Your task to perform on an android device: Do I have any events tomorrow? Image 0: 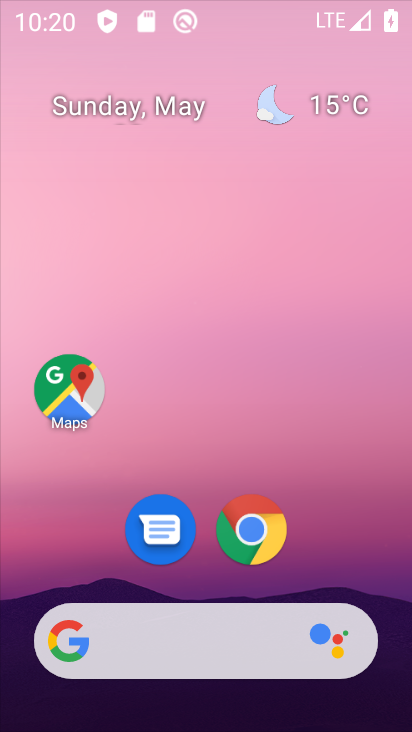
Step 0: drag from (311, 627) to (329, 65)
Your task to perform on an android device: Do I have any events tomorrow? Image 1: 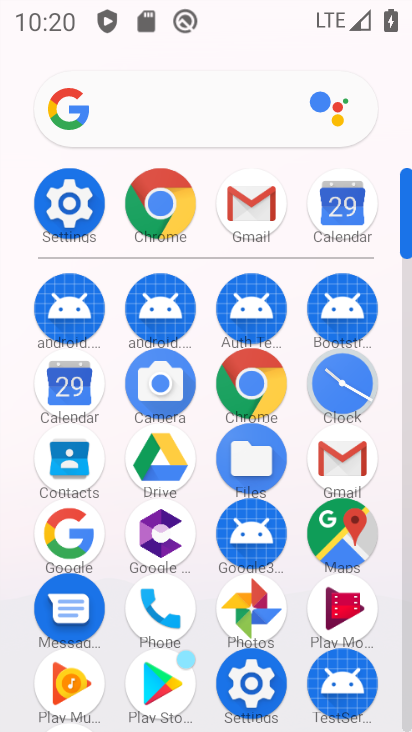
Step 1: click (76, 385)
Your task to perform on an android device: Do I have any events tomorrow? Image 2: 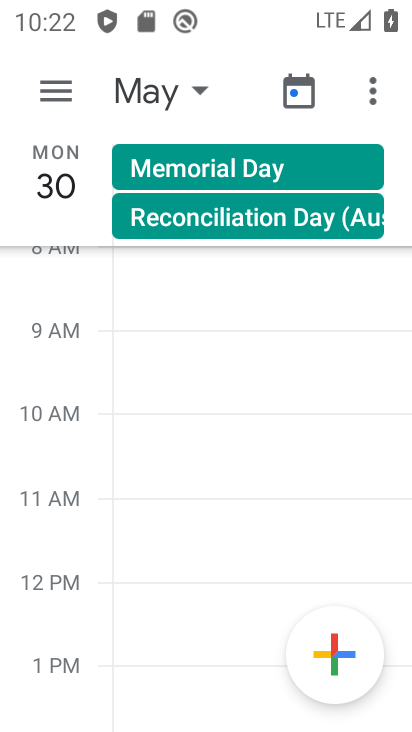
Step 2: click (204, 92)
Your task to perform on an android device: Do I have any events tomorrow? Image 3: 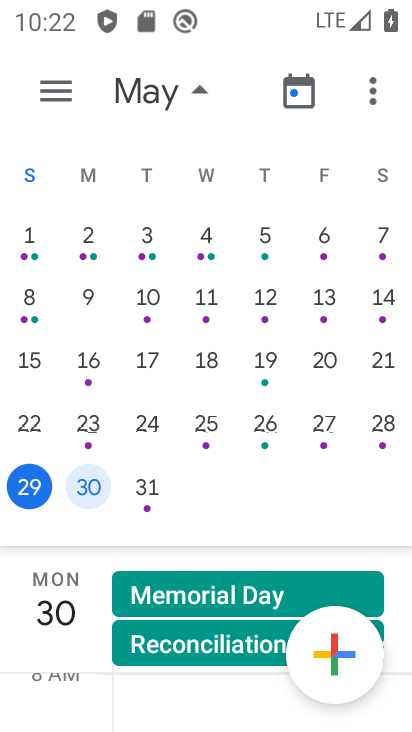
Step 3: click (153, 490)
Your task to perform on an android device: Do I have any events tomorrow? Image 4: 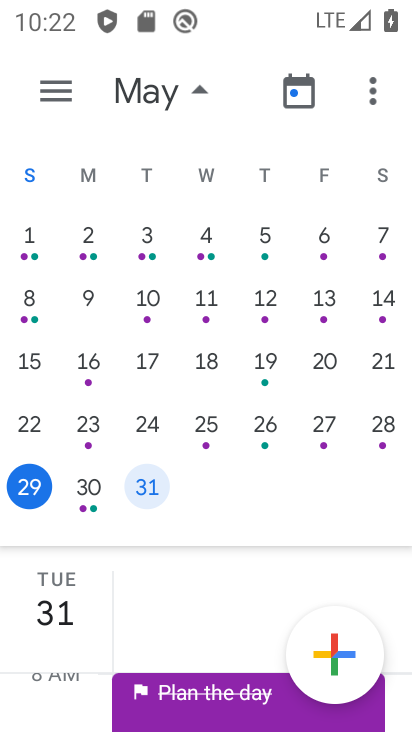
Step 4: task complete